Your task to perform on an android device: Play the last video I watched on Youtube Image 0: 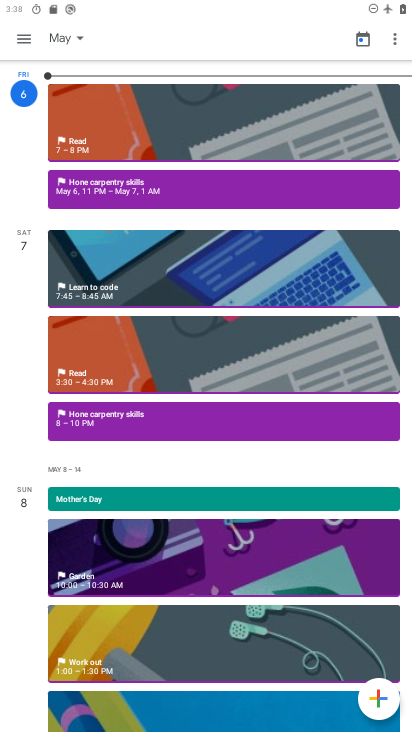
Step 0: press home button
Your task to perform on an android device: Play the last video I watched on Youtube Image 1: 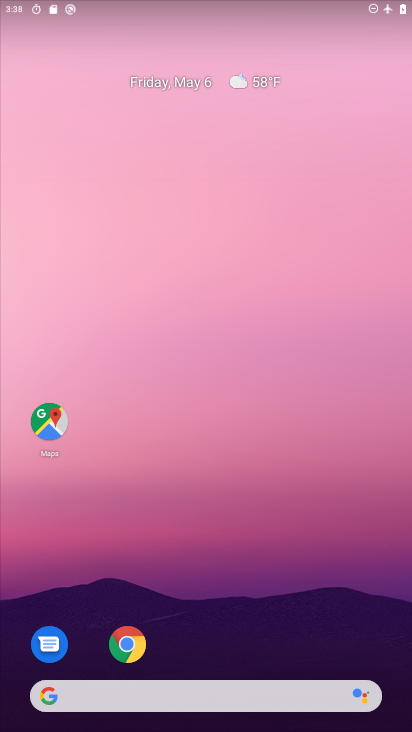
Step 1: drag from (193, 726) to (202, 171)
Your task to perform on an android device: Play the last video I watched on Youtube Image 2: 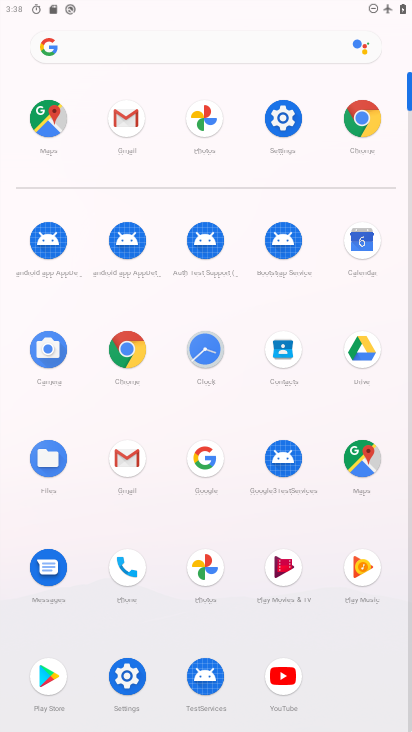
Step 2: click (287, 667)
Your task to perform on an android device: Play the last video I watched on Youtube Image 3: 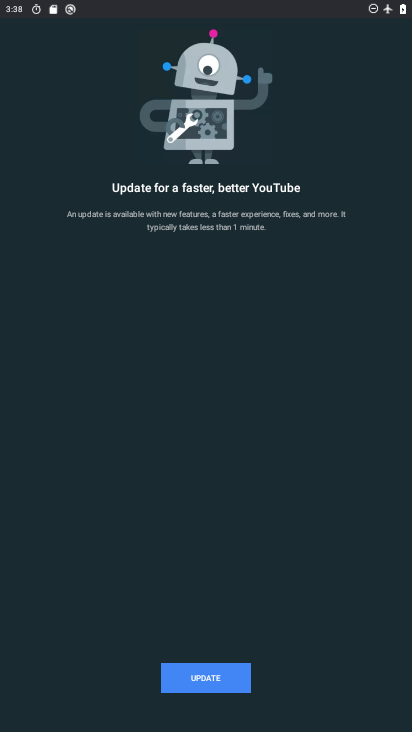
Step 3: task complete